Your task to perform on an android device: toggle location history Image 0: 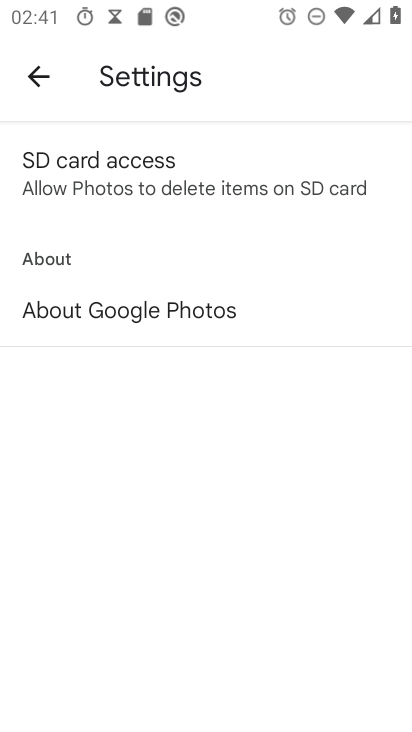
Step 0: press home button
Your task to perform on an android device: toggle location history Image 1: 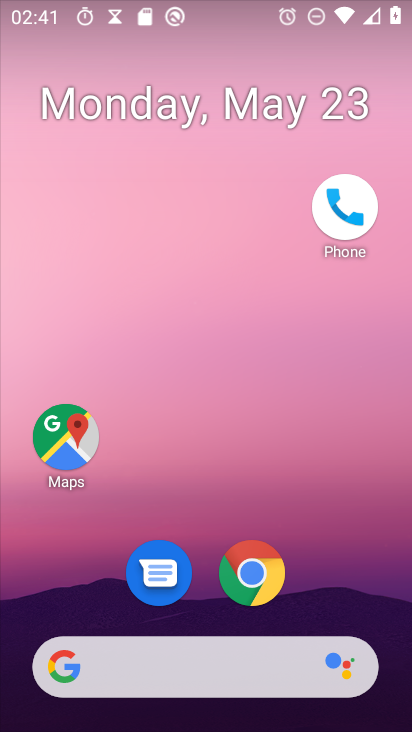
Step 1: drag from (191, 622) to (359, 80)
Your task to perform on an android device: toggle location history Image 2: 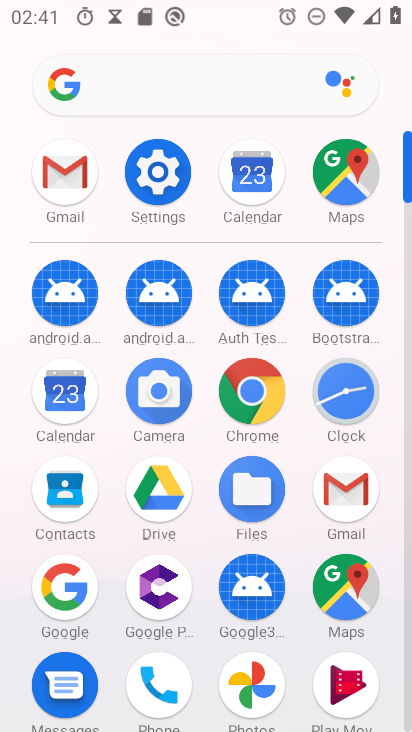
Step 2: click (142, 175)
Your task to perform on an android device: toggle location history Image 3: 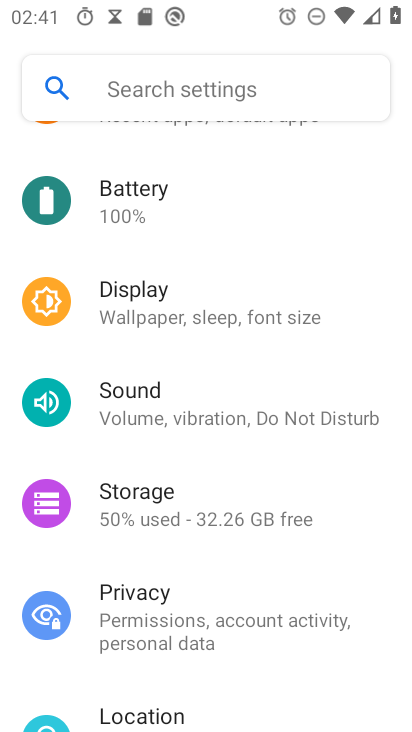
Step 3: click (126, 719)
Your task to perform on an android device: toggle location history Image 4: 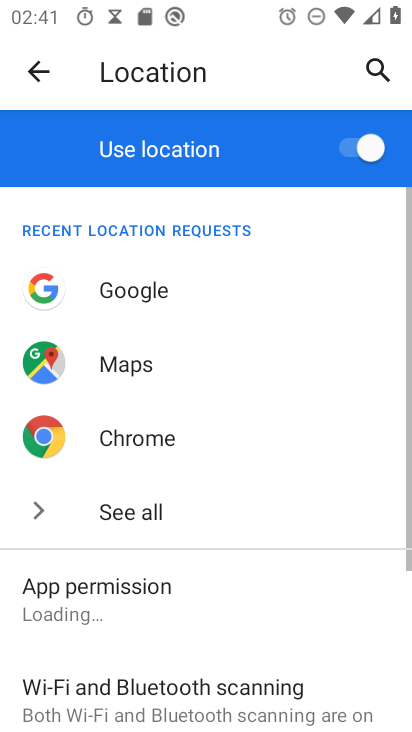
Step 4: drag from (219, 594) to (374, 34)
Your task to perform on an android device: toggle location history Image 5: 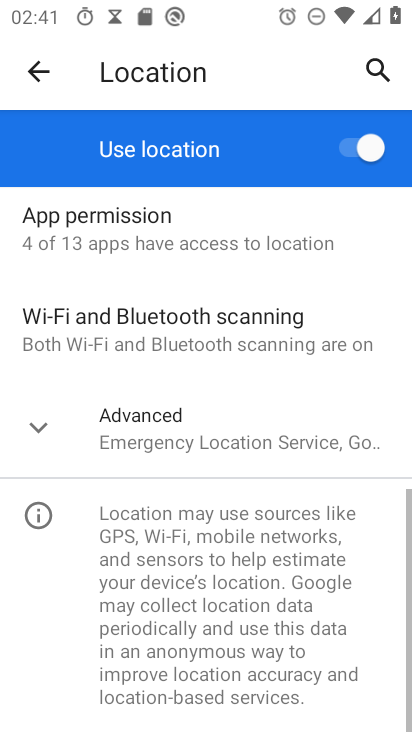
Step 5: click (170, 428)
Your task to perform on an android device: toggle location history Image 6: 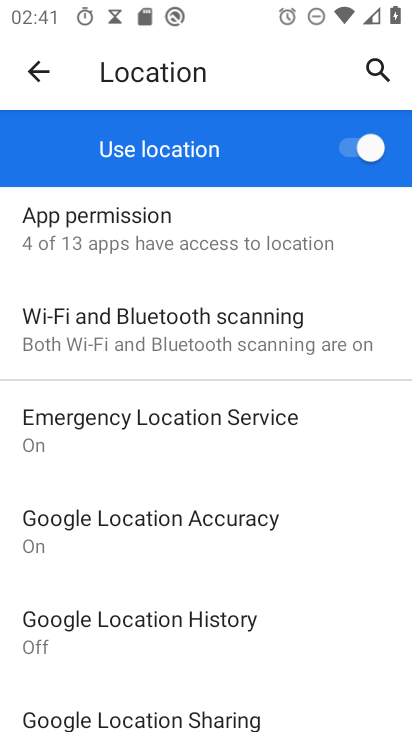
Step 6: click (69, 624)
Your task to perform on an android device: toggle location history Image 7: 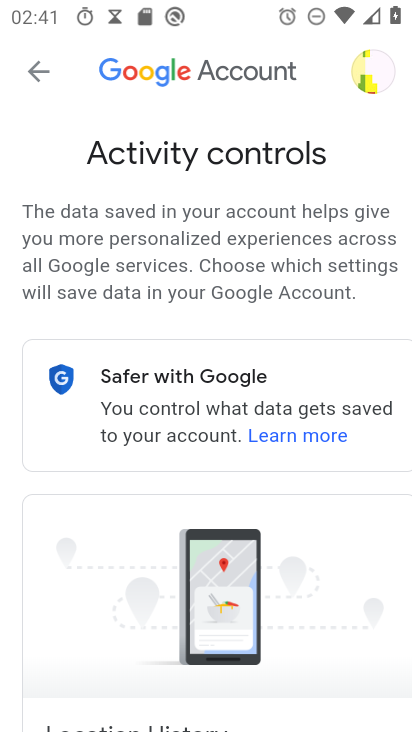
Step 7: drag from (310, 666) to (384, 214)
Your task to perform on an android device: toggle location history Image 8: 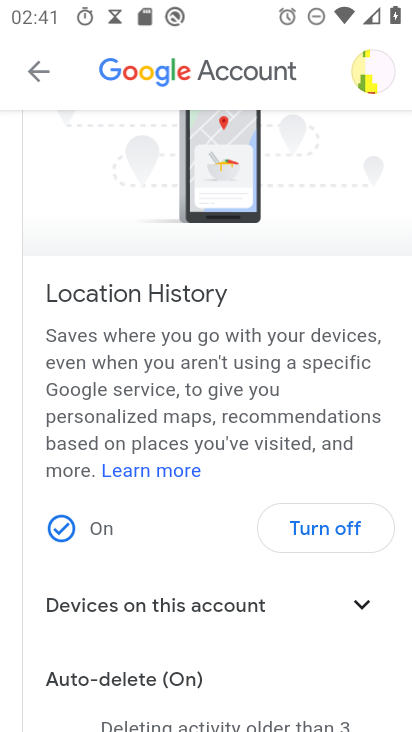
Step 8: click (317, 533)
Your task to perform on an android device: toggle location history Image 9: 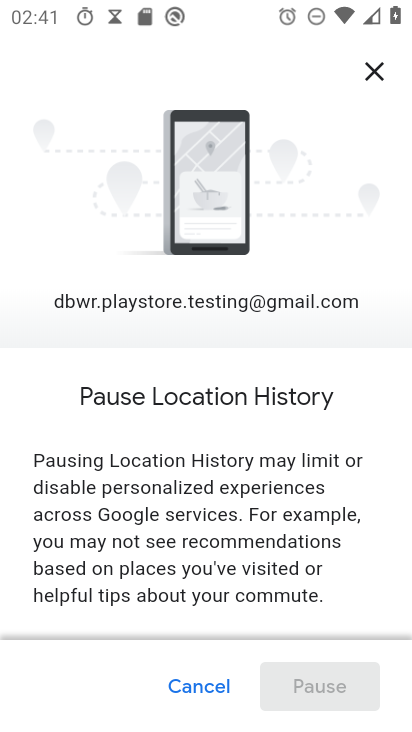
Step 9: drag from (263, 578) to (371, 271)
Your task to perform on an android device: toggle location history Image 10: 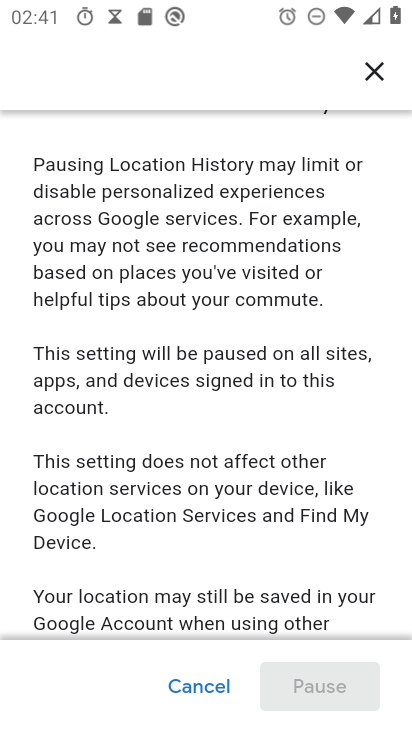
Step 10: drag from (248, 604) to (408, 166)
Your task to perform on an android device: toggle location history Image 11: 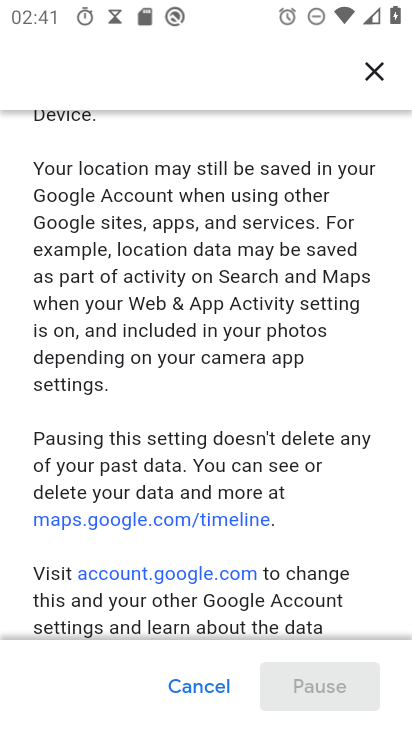
Step 11: drag from (247, 625) to (361, 150)
Your task to perform on an android device: toggle location history Image 12: 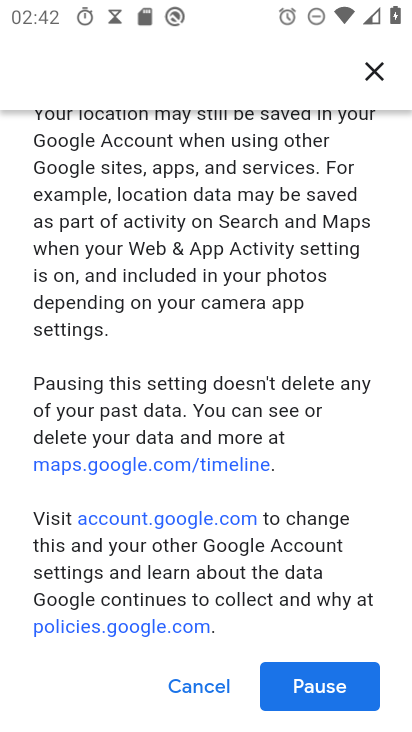
Step 12: click (335, 689)
Your task to perform on an android device: toggle location history Image 13: 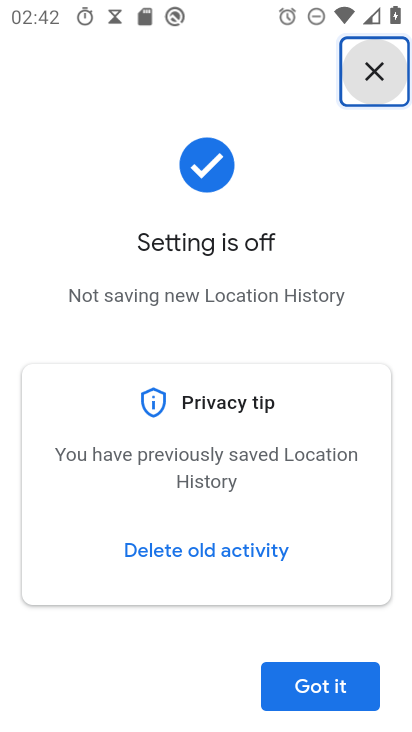
Step 13: click (328, 694)
Your task to perform on an android device: toggle location history Image 14: 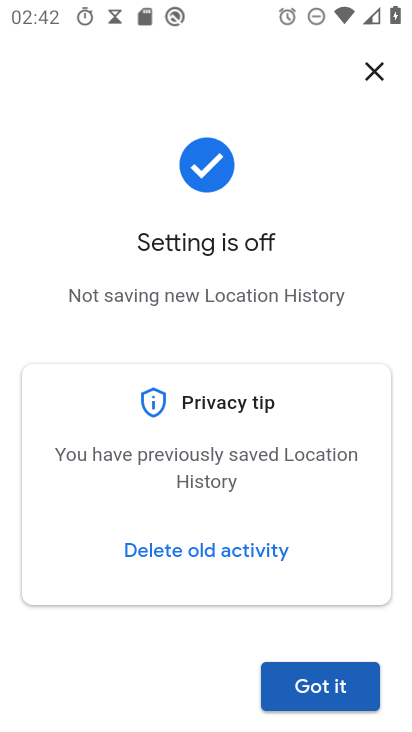
Step 14: click (328, 693)
Your task to perform on an android device: toggle location history Image 15: 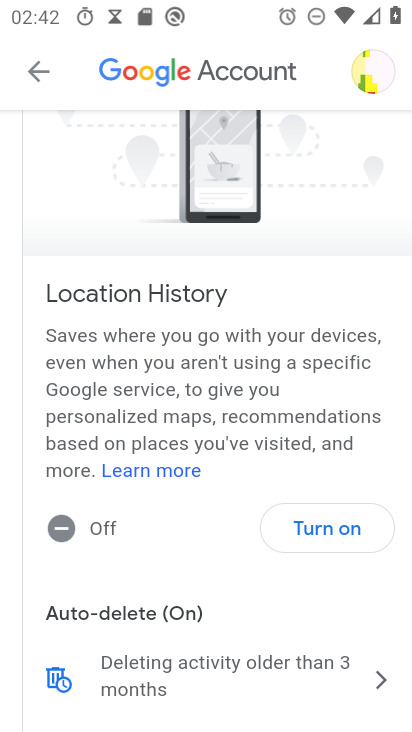
Step 15: task complete